Your task to perform on an android device: turn notification dots off Image 0: 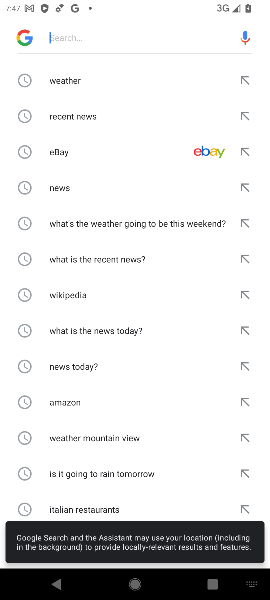
Step 0: press home button
Your task to perform on an android device: turn notification dots off Image 1: 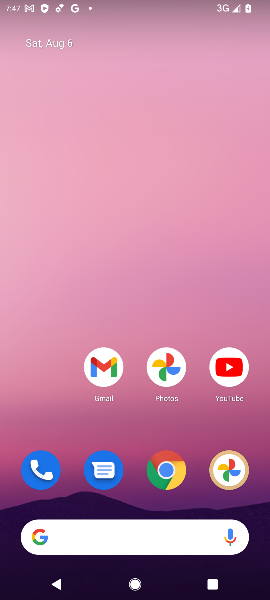
Step 1: drag from (158, 539) to (231, 0)
Your task to perform on an android device: turn notification dots off Image 2: 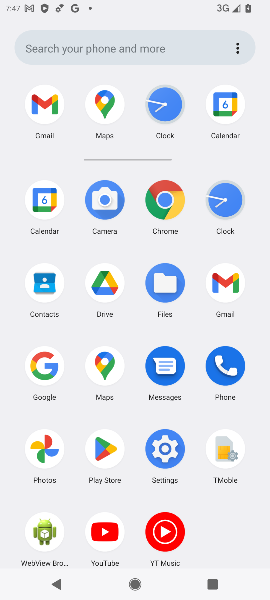
Step 2: click (174, 451)
Your task to perform on an android device: turn notification dots off Image 3: 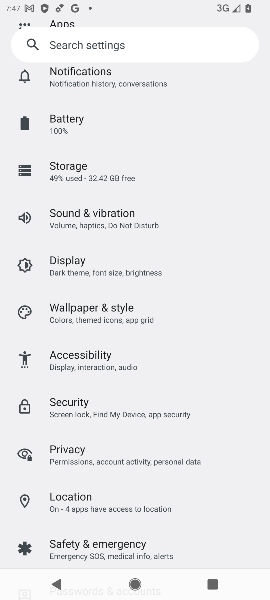
Step 3: drag from (116, 273) to (102, 425)
Your task to perform on an android device: turn notification dots off Image 4: 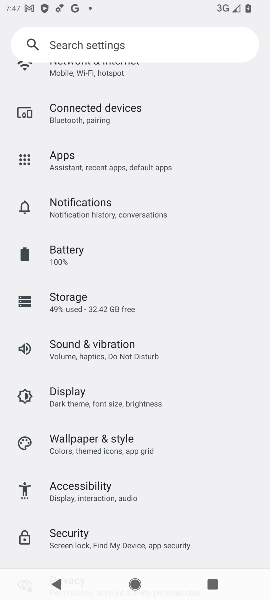
Step 4: click (132, 209)
Your task to perform on an android device: turn notification dots off Image 5: 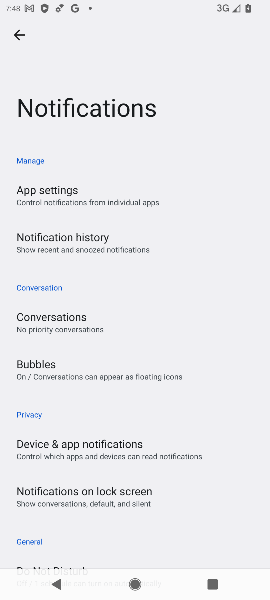
Step 5: task complete